Your task to perform on an android device: Find coffee shops on Maps Image 0: 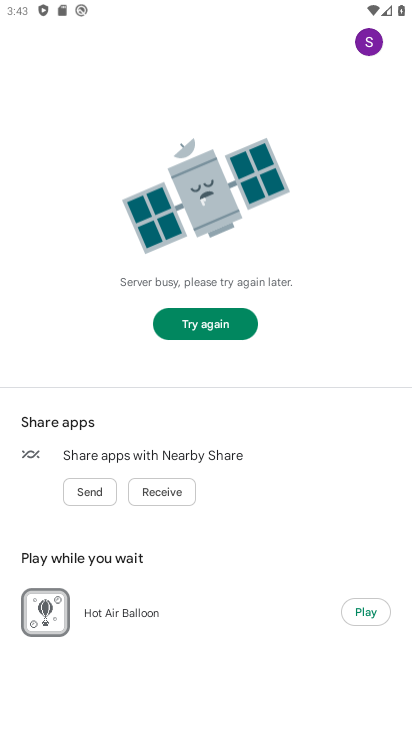
Step 0: press home button
Your task to perform on an android device: Find coffee shops on Maps Image 1: 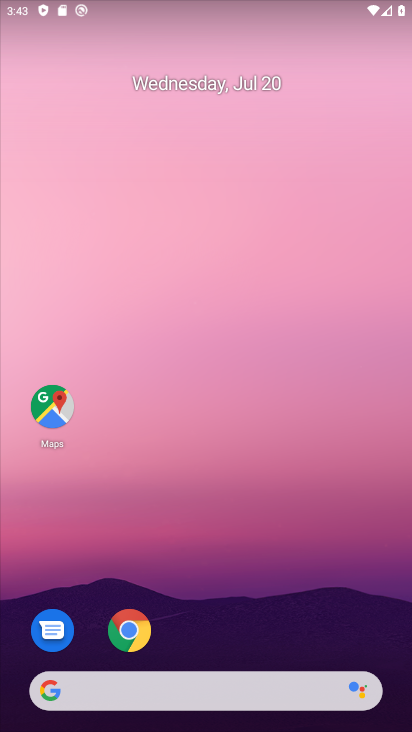
Step 1: click (40, 395)
Your task to perform on an android device: Find coffee shops on Maps Image 2: 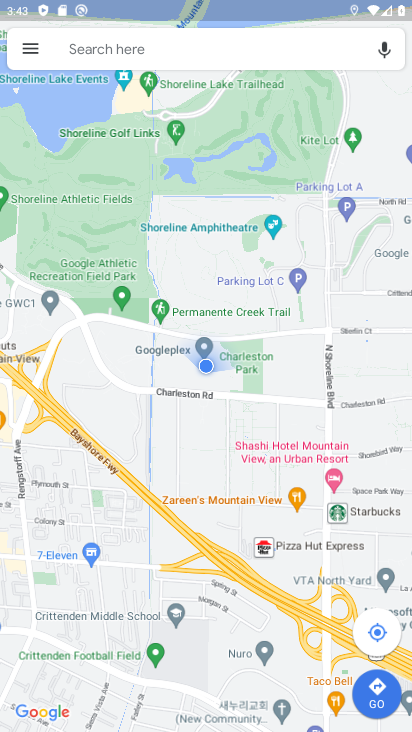
Step 2: click (80, 41)
Your task to perform on an android device: Find coffee shops on Maps Image 3: 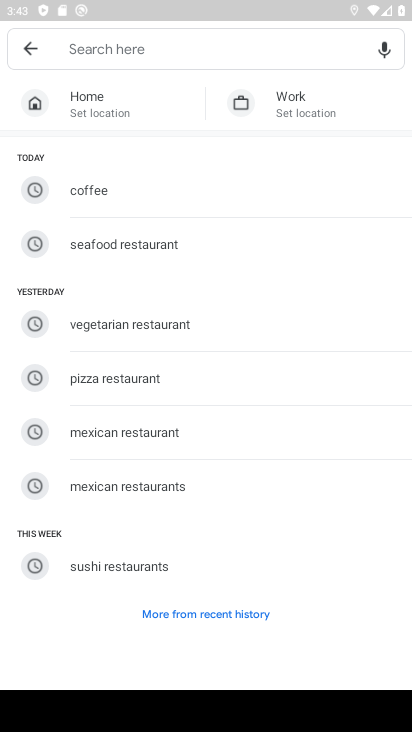
Step 3: type "coffee shops "
Your task to perform on an android device: Find coffee shops on Maps Image 4: 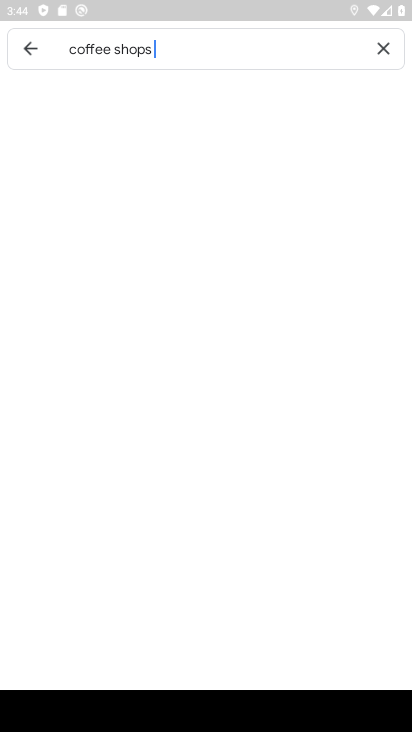
Step 4: type ""
Your task to perform on an android device: Find coffee shops on Maps Image 5: 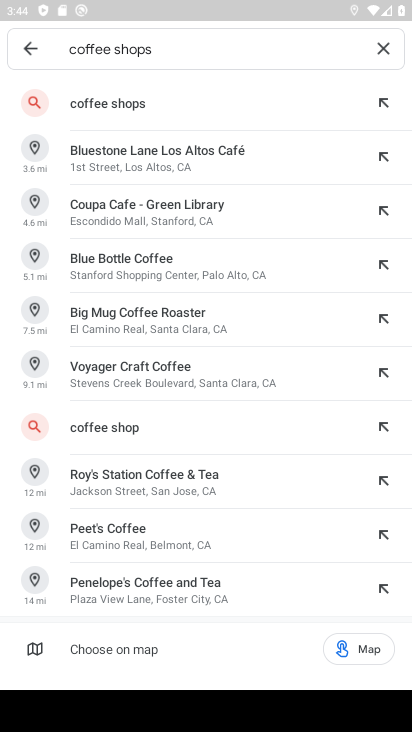
Step 5: click (82, 105)
Your task to perform on an android device: Find coffee shops on Maps Image 6: 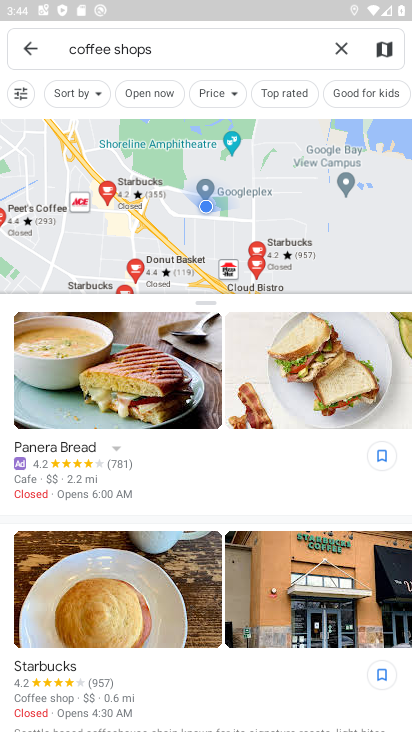
Step 6: task complete